Your task to perform on an android device: stop showing notifications on the lock screen Image 0: 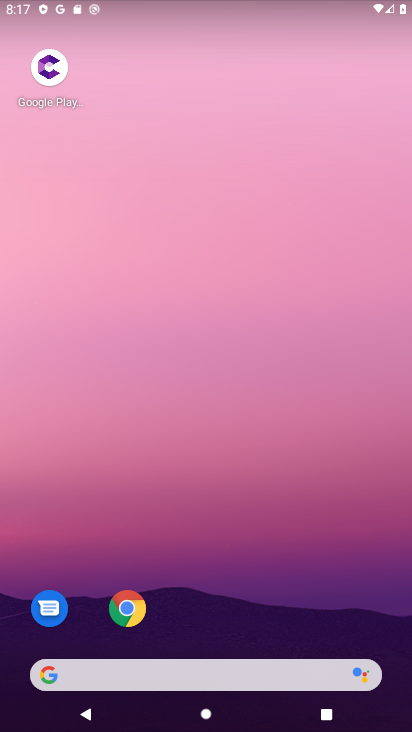
Step 0: drag from (245, 511) to (153, 97)
Your task to perform on an android device: stop showing notifications on the lock screen Image 1: 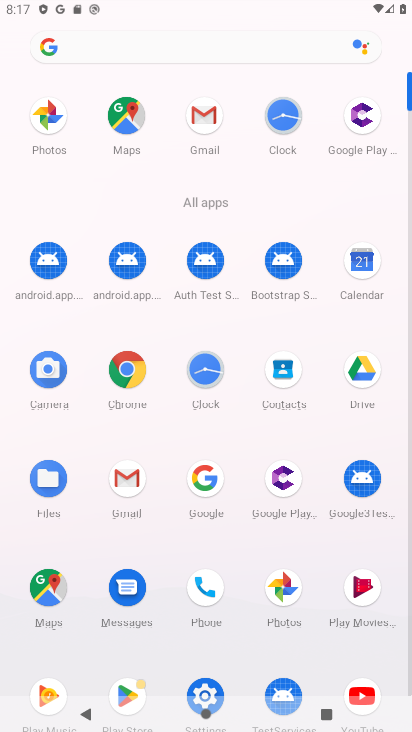
Step 1: click (205, 689)
Your task to perform on an android device: stop showing notifications on the lock screen Image 2: 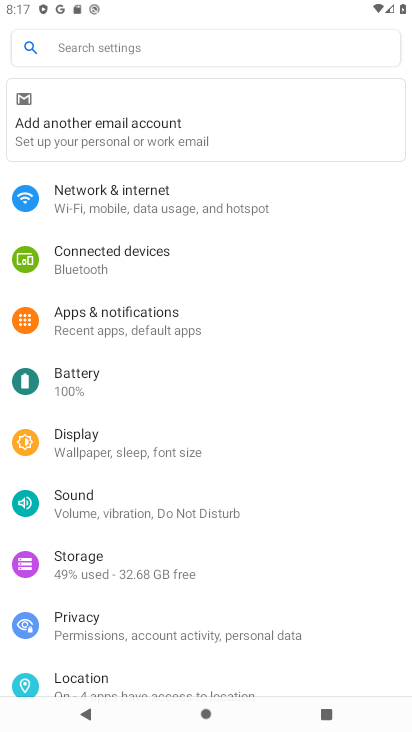
Step 2: click (109, 326)
Your task to perform on an android device: stop showing notifications on the lock screen Image 3: 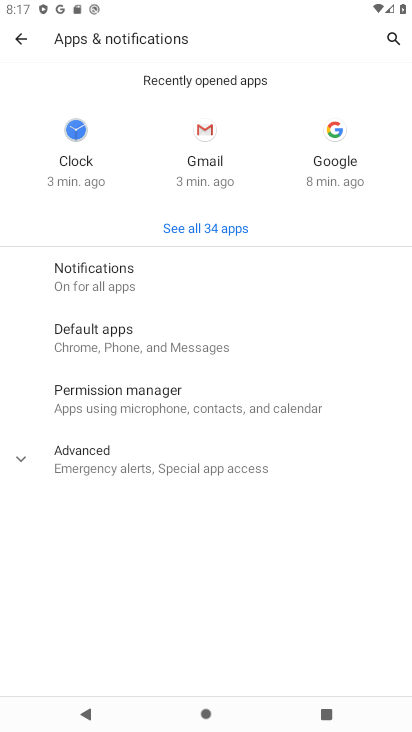
Step 3: task complete